Your task to perform on an android device: Open Yahoo.com Image 0: 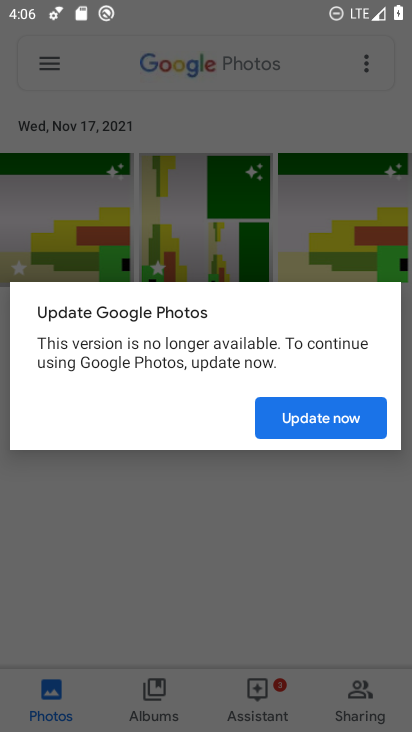
Step 0: press home button
Your task to perform on an android device: Open Yahoo.com Image 1: 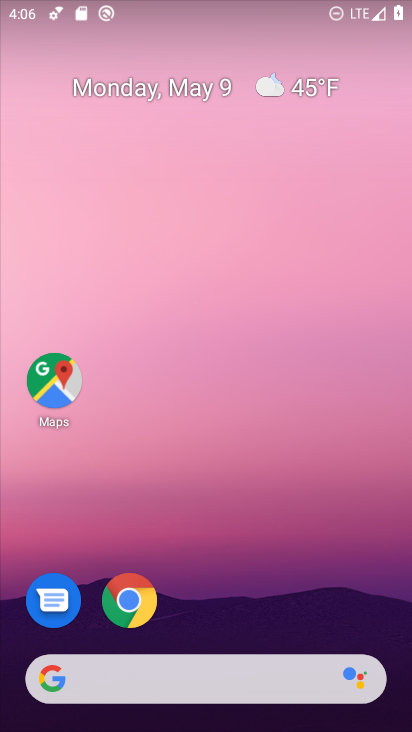
Step 1: click (139, 605)
Your task to perform on an android device: Open Yahoo.com Image 2: 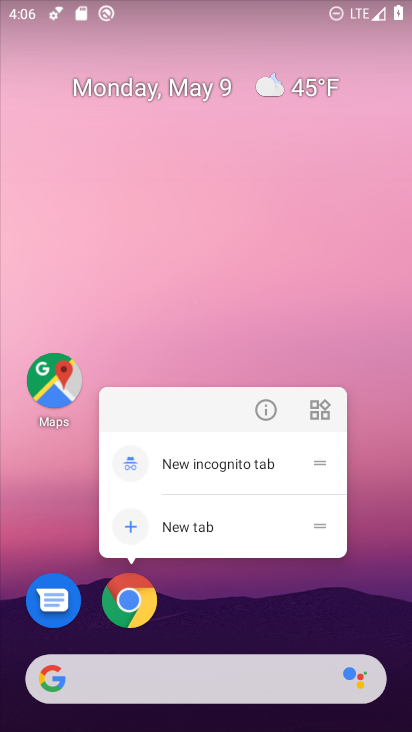
Step 2: click (139, 595)
Your task to perform on an android device: Open Yahoo.com Image 3: 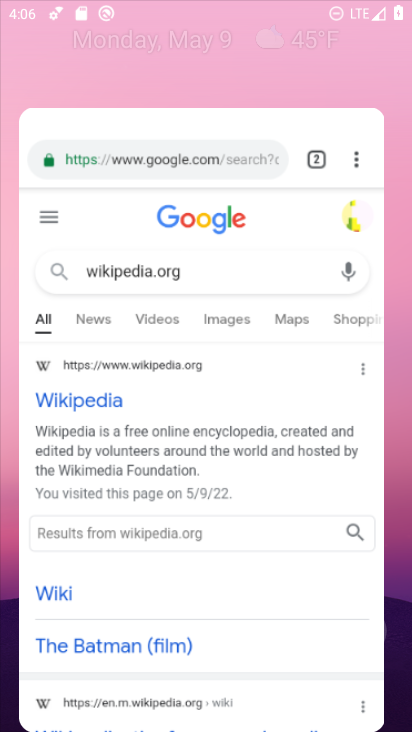
Step 3: click (139, 595)
Your task to perform on an android device: Open Yahoo.com Image 4: 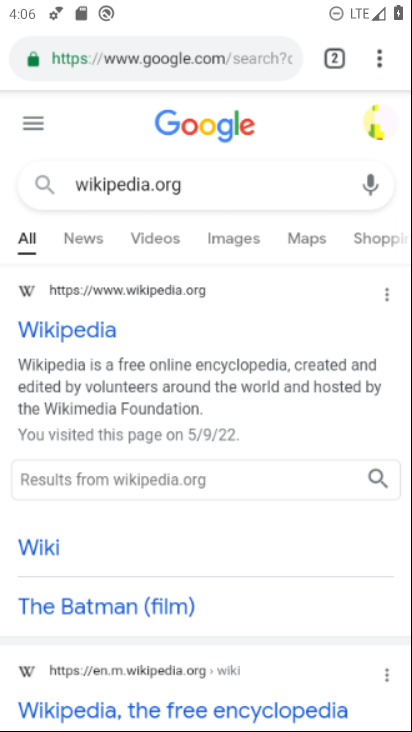
Step 4: click (139, 595)
Your task to perform on an android device: Open Yahoo.com Image 5: 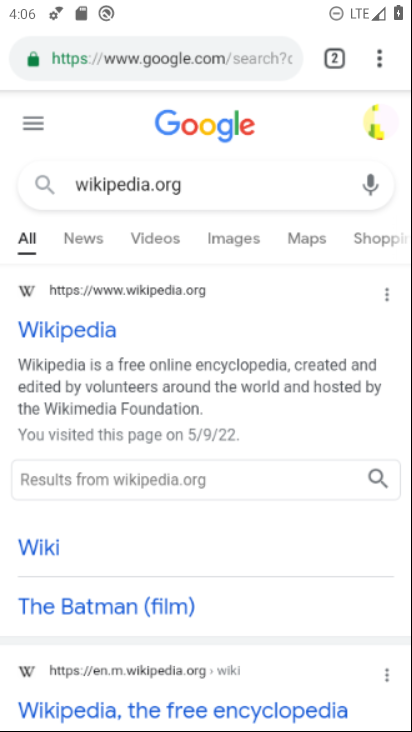
Step 5: click (139, 595)
Your task to perform on an android device: Open Yahoo.com Image 6: 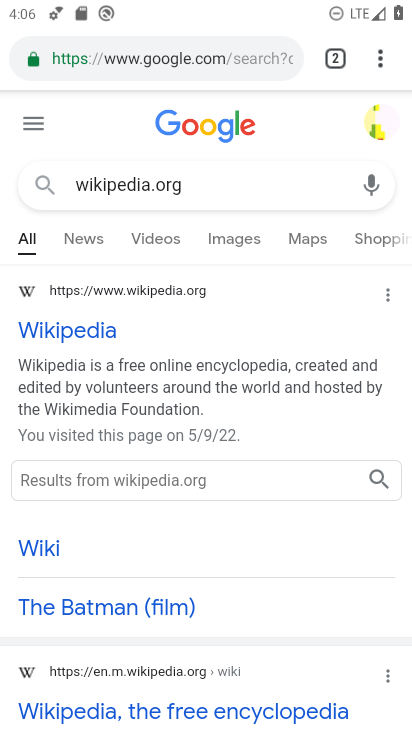
Step 6: click (244, 55)
Your task to perform on an android device: Open Yahoo.com Image 7: 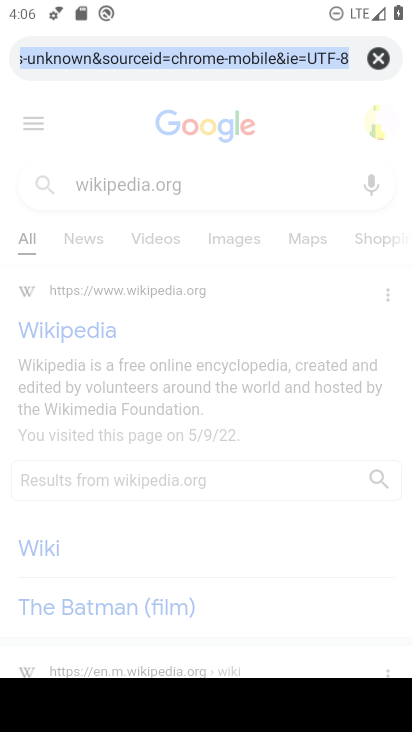
Step 7: type "yahoo.com"
Your task to perform on an android device: Open Yahoo.com Image 8: 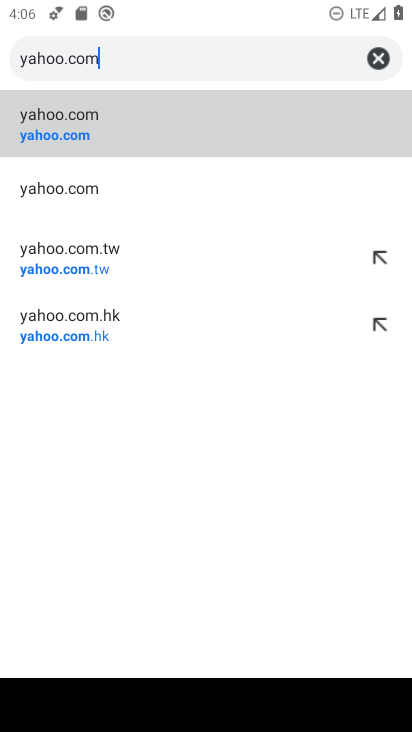
Step 8: click (147, 145)
Your task to perform on an android device: Open Yahoo.com Image 9: 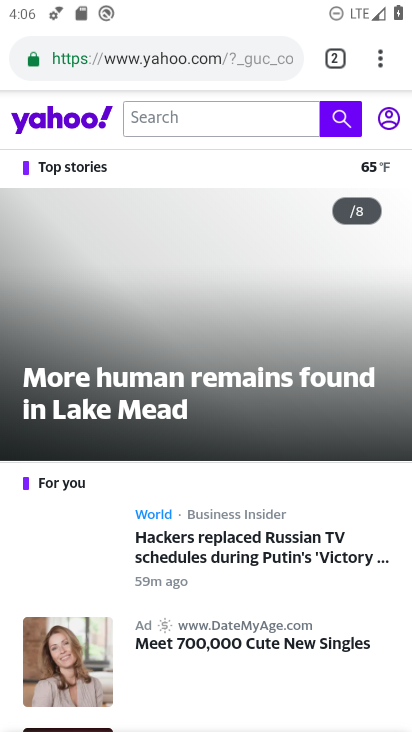
Step 9: task complete